Your task to perform on an android device: Is it going to rain tomorrow? Image 0: 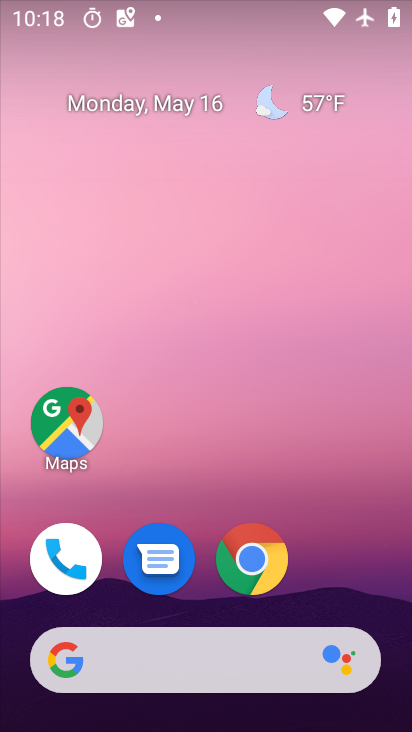
Step 0: click (335, 102)
Your task to perform on an android device: Is it going to rain tomorrow? Image 1: 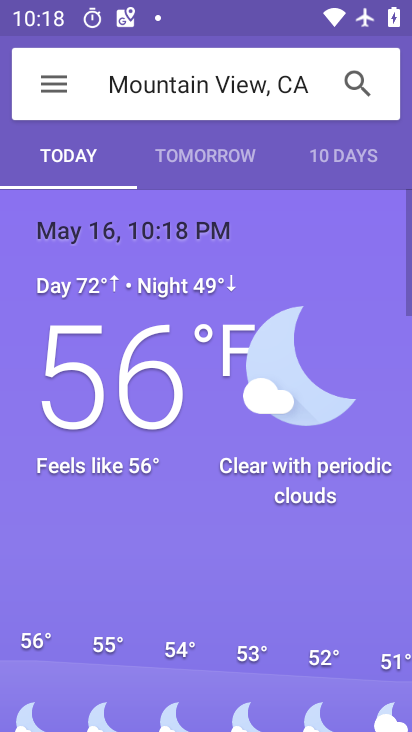
Step 1: click (186, 164)
Your task to perform on an android device: Is it going to rain tomorrow? Image 2: 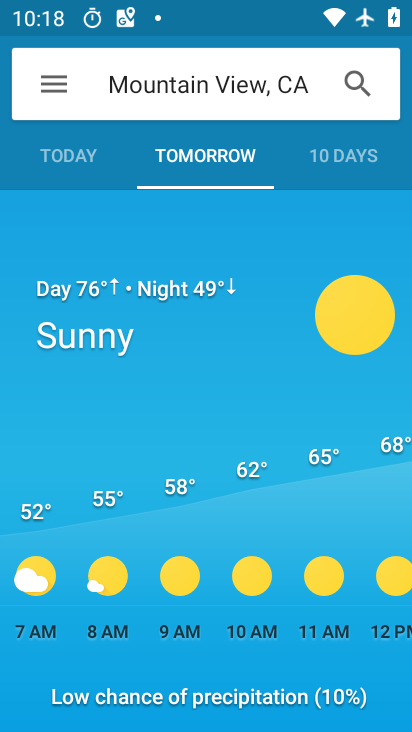
Step 2: task complete